Your task to perform on an android device: toggle notifications settings in the gmail app Image 0: 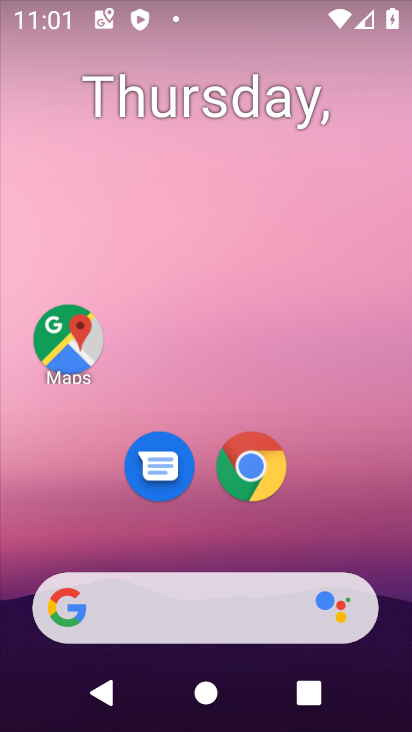
Step 0: drag from (212, 548) to (243, 11)
Your task to perform on an android device: toggle notifications settings in the gmail app Image 1: 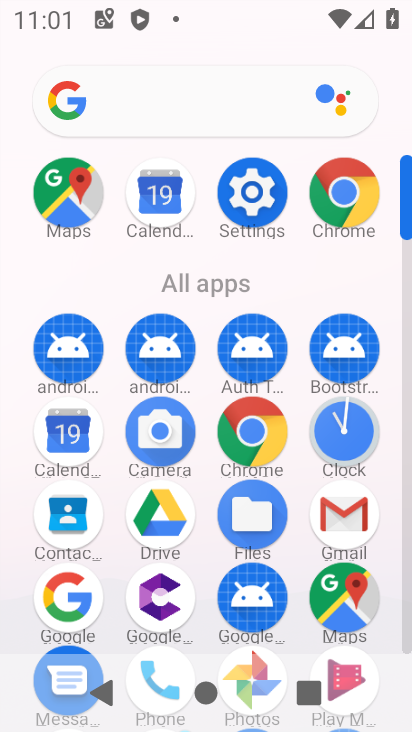
Step 1: click (339, 525)
Your task to perform on an android device: toggle notifications settings in the gmail app Image 2: 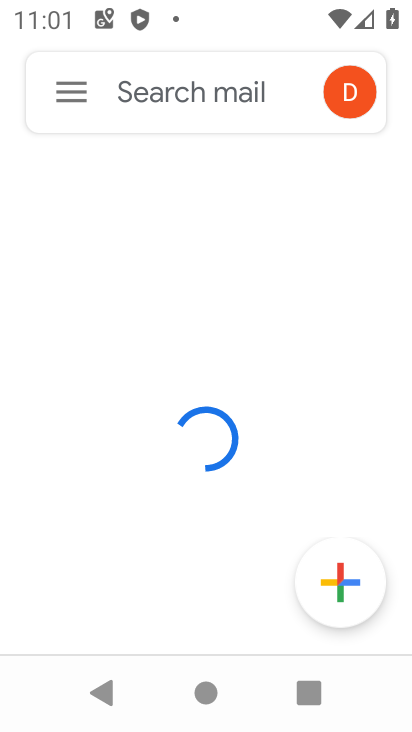
Step 2: click (66, 97)
Your task to perform on an android device: toggle notifications settings in the gmail app Image 3: 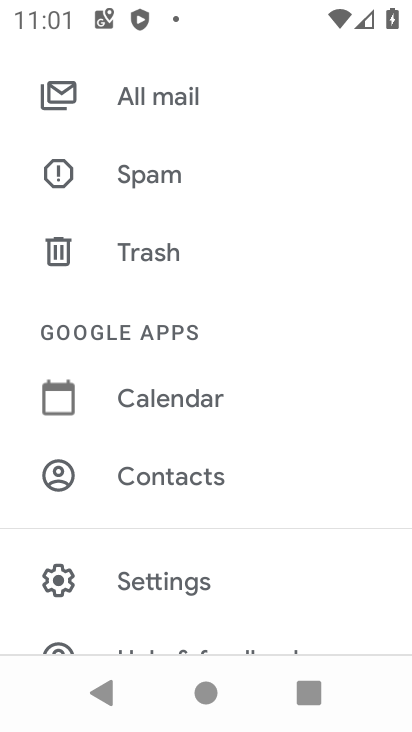
Step 3: click (144, 561)
Your task to perform on an android device: toggle notifications settings in the gmail app Image 4: 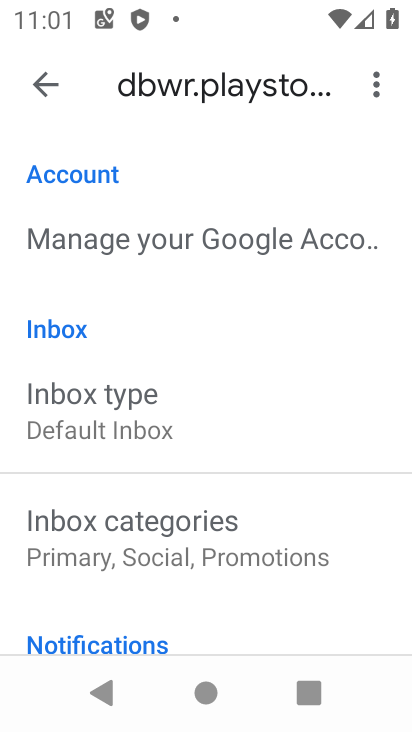
Step 4: click (39, 100)
Your task to perform on an android device: toggle notifications settings in the gmail app Image 5: 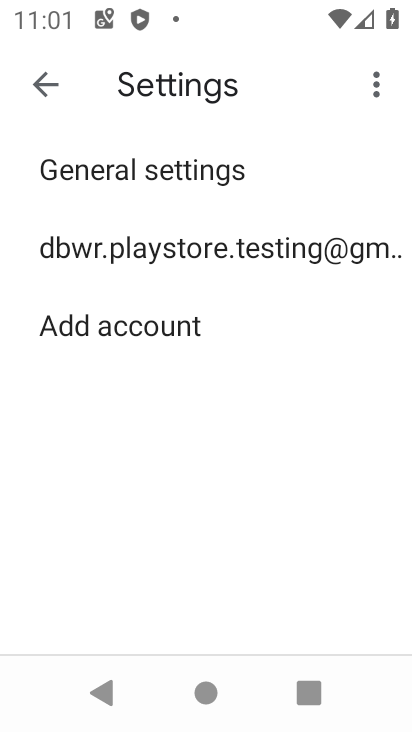
Step 5: click (66, 170)
Your task to perform on an android device: toggle notifications settings in the gmail app Image 6: 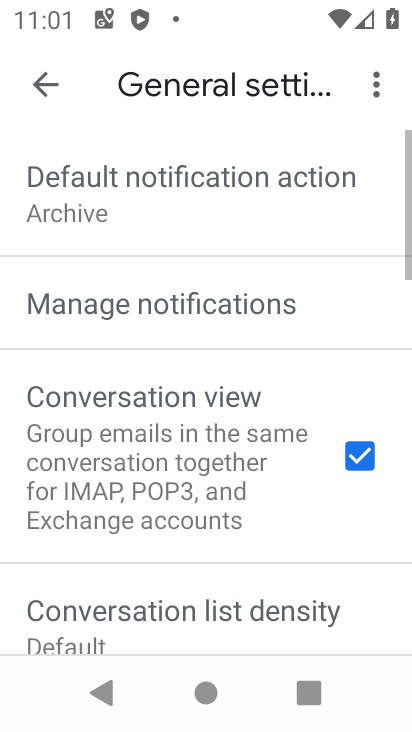
Step 6: click (98, 309)
Your task to perform on an android device: toggle notifications settings in the gmail app Image 7: 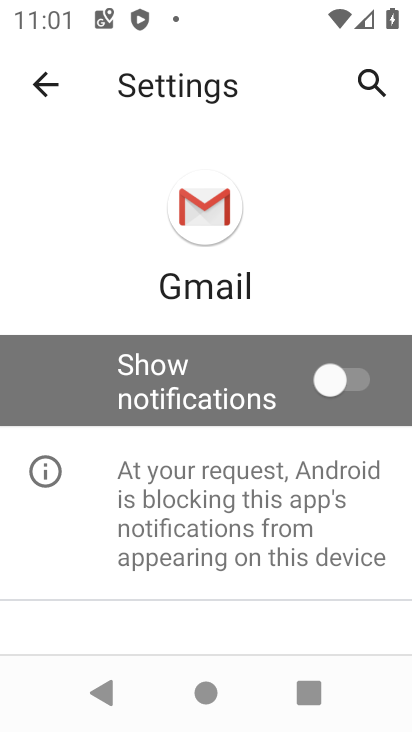
Step 7: click (316, 365)
Your task to perform on an android device: toggle notifications settings in the gmail app Image 8: 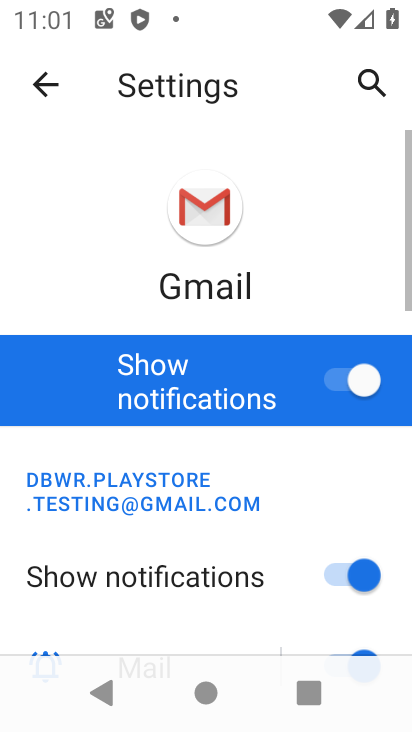
Step 8: task complete